Your task to perform on an android device: Open Google Chrome and open the bookmarks view Image 0: 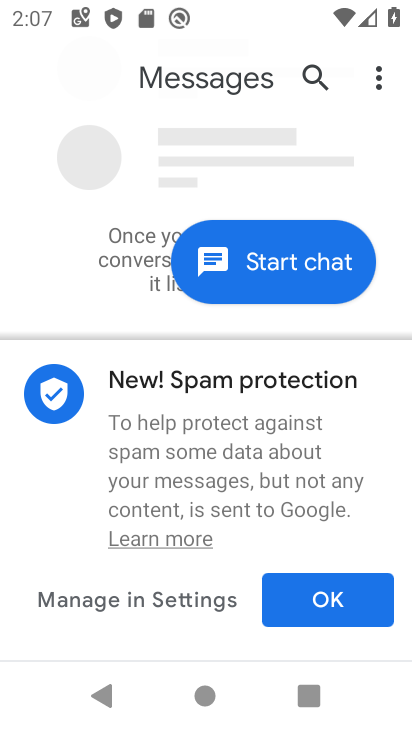
Step 0: press home button
Your task to perform on an android device: Open Google Chrome and open the bookmarks view Image 1: 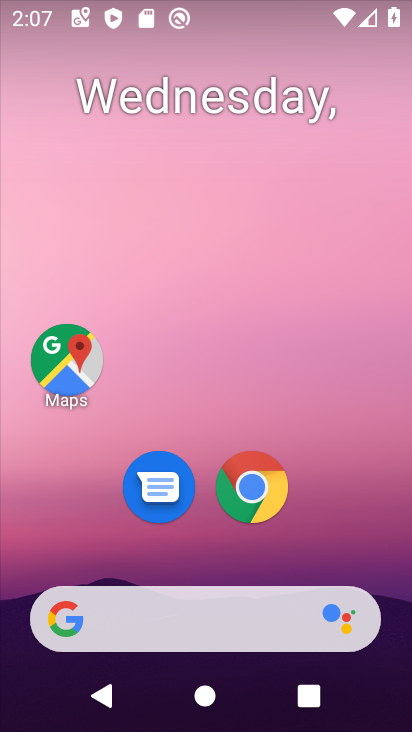
Step 1: click (258, 487)
Your task to perform on an android device: Open Google Chrome and open the bookmarks view Image 2: 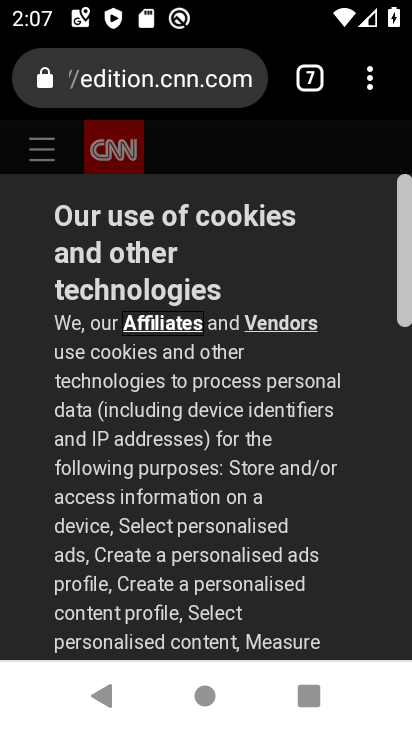
Step 2: click (378, 72)
Your task to perform on an android device: Open Google Chrome and open the bookmarks view Image 3: 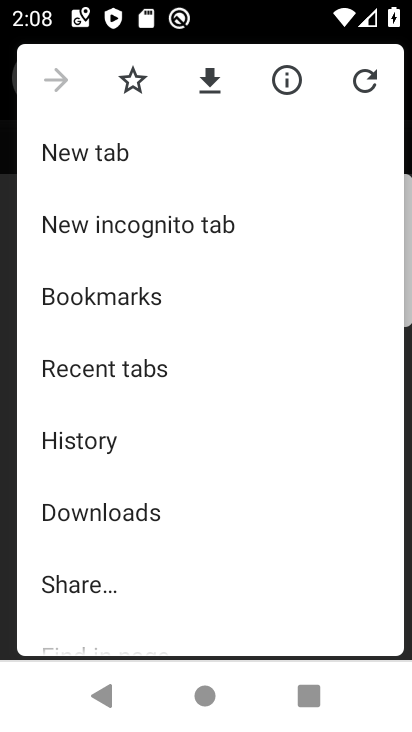
Step 3: click (137, 286)
Your task to perform on an android device: Open Google Chrome and open the bookmarks view Image 4: 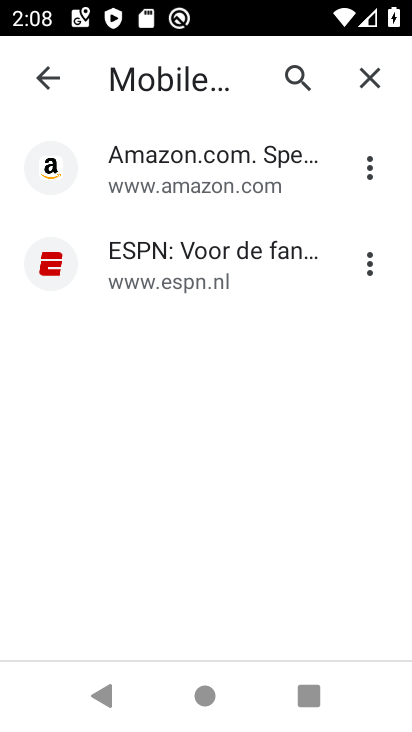
Step 4: click (367, 164)
Your task to perform on an android device: Open Google Chrome and open the bookmarks view Image 5: 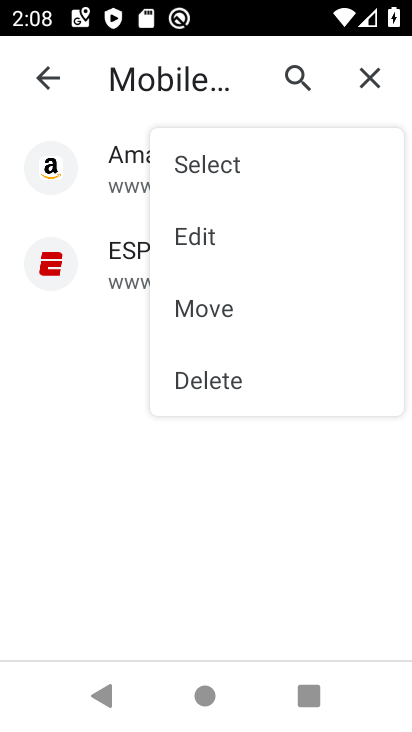
Step 5: click (205, 238)
Your task to perform on an android device: Open Google Chrome and open the bookmarks view Image 6: 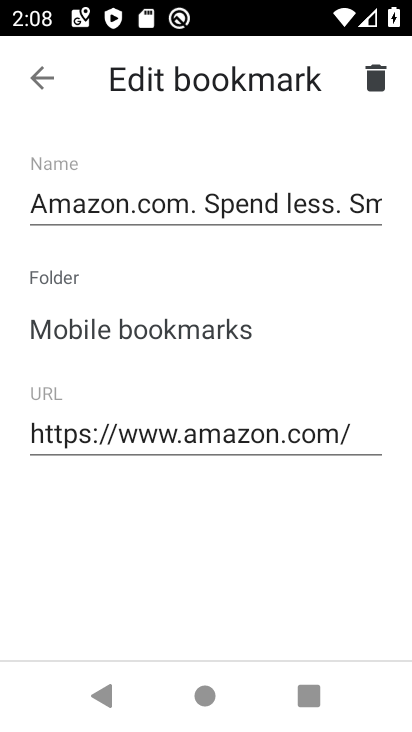
Step 6: task complete